Your task to perform on an android device: uninstall "Viber Messenger" Image 0: 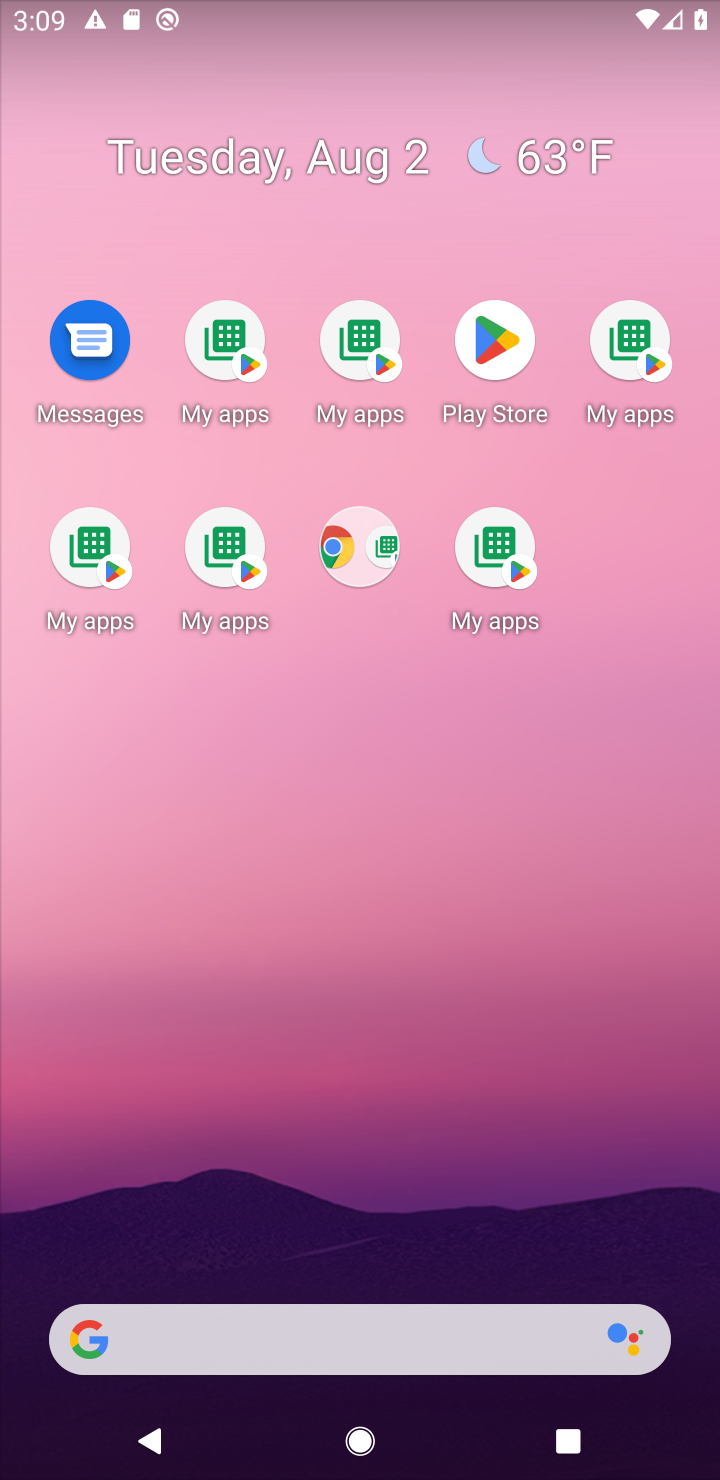
Step 0: drag from (394, 1012) to (360, 435)
Your task to perform on an android device: uninstall "Viber Messenger" Image 1: 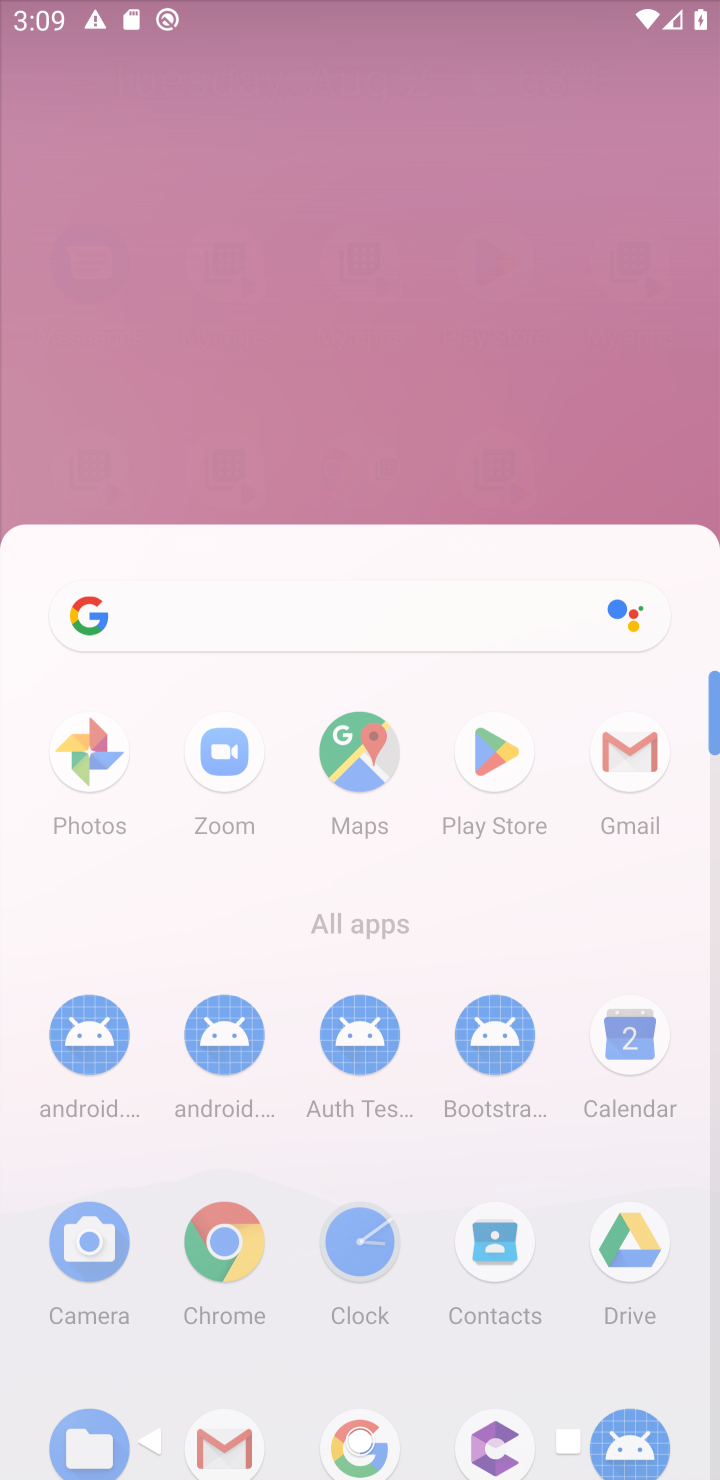
Step 1: drag from (383, 723) to (394, 84)
Your task to perform on an android device: uninstall "Viber Messenger" Image 2: 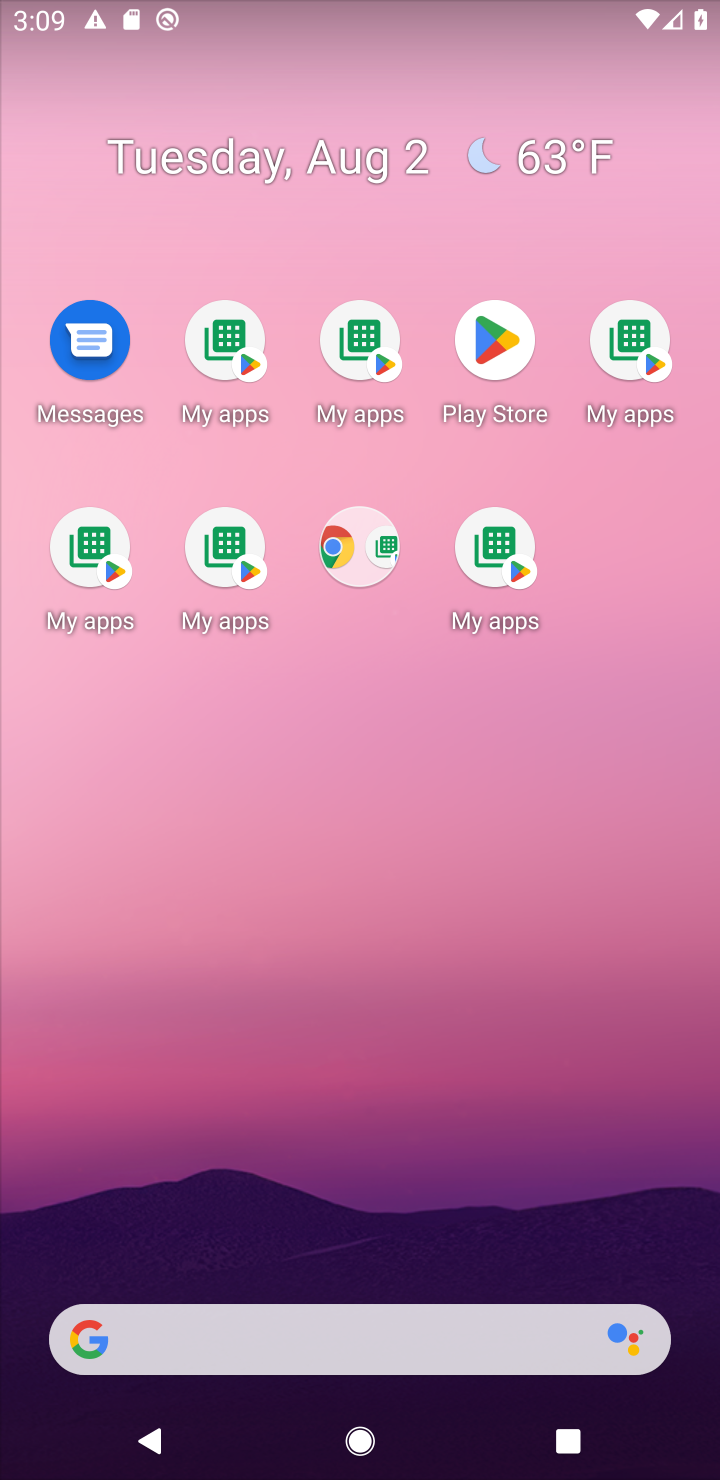
Step 2: click (323, 307)
Your task to perform on an android device: uninstall "Viber Messenger" Image 3: 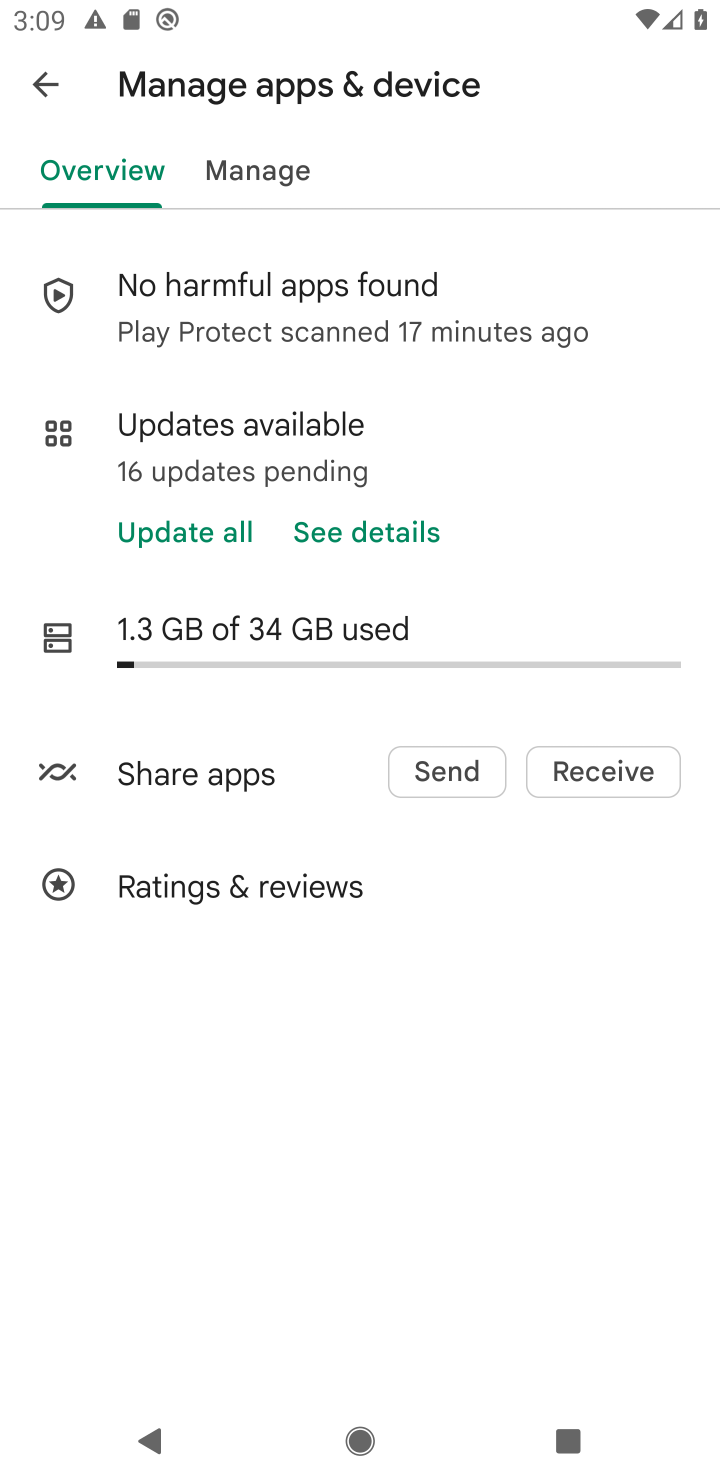
Step 3: click (37, 74)
Your task to perform on an android device: uninstall "Viber Messenger" Image 4: 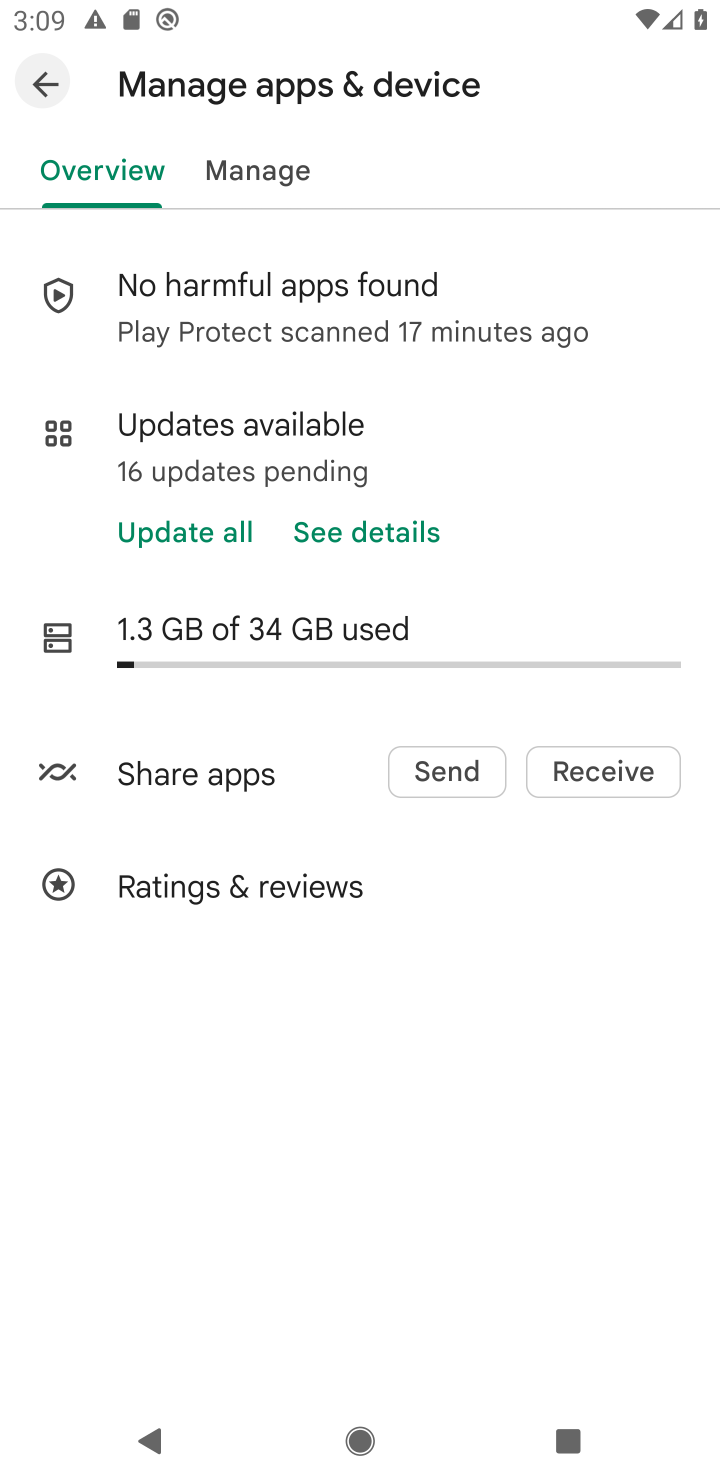
Step 4: click (40, 79)
Your task to perform on an android device: uninstall "Viber Messenger" Image 5: 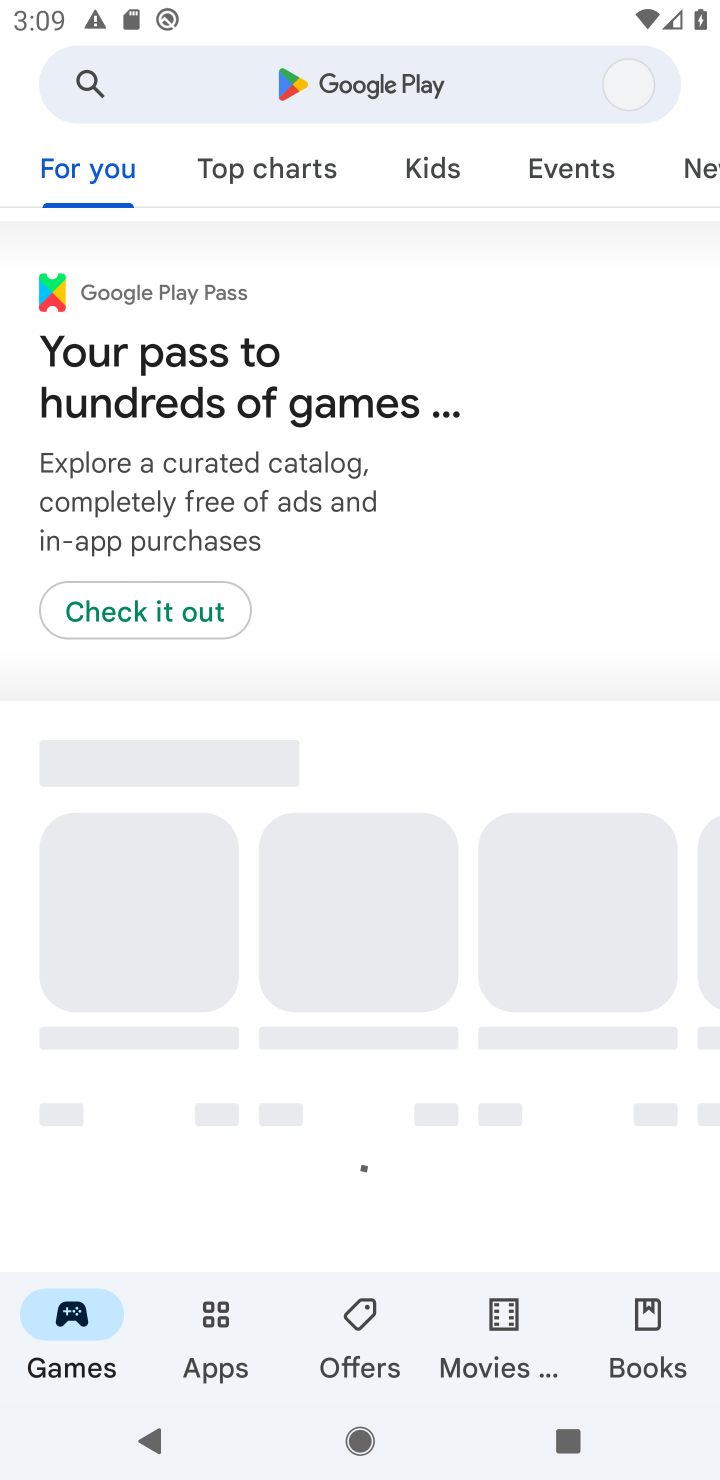
Step 5: click (335, 80)
Your task to perform on an android device: uninstall "Viber Messenger" Image 6: 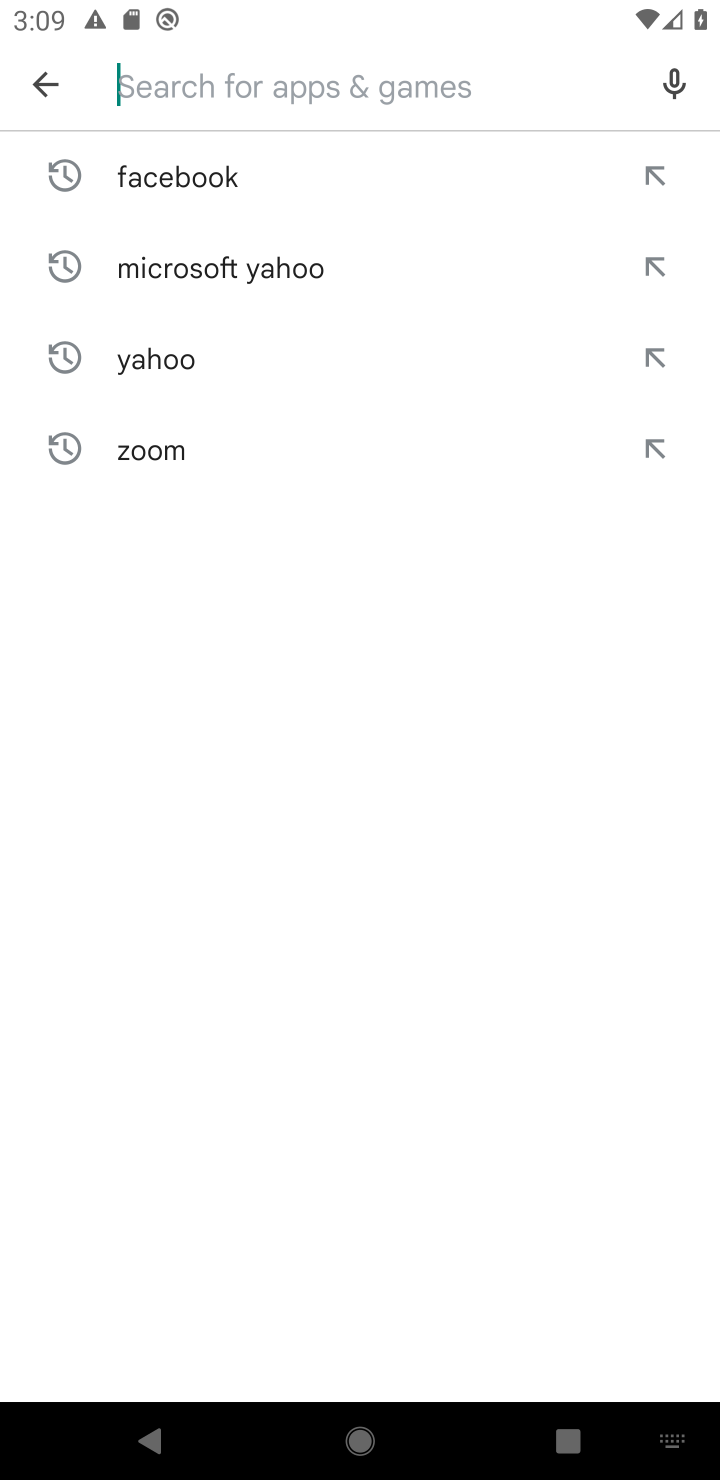
Step 6: type "viber messenger"
Your task to perform on an android device: uninstall "Viber Messenger" Image 7: 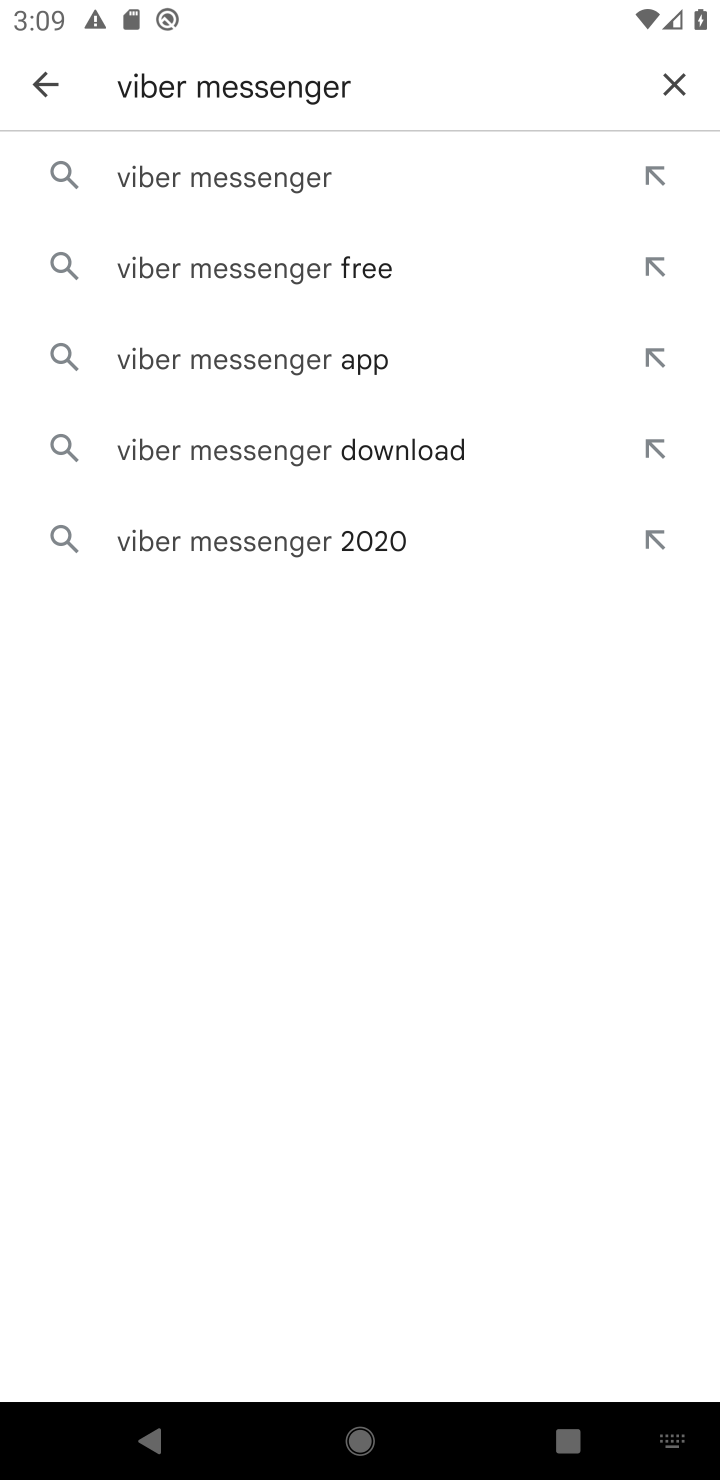
Step 7: click (204, 188)
Your task to perform on an android device: uninstall "Viber Messenger" Image 8: 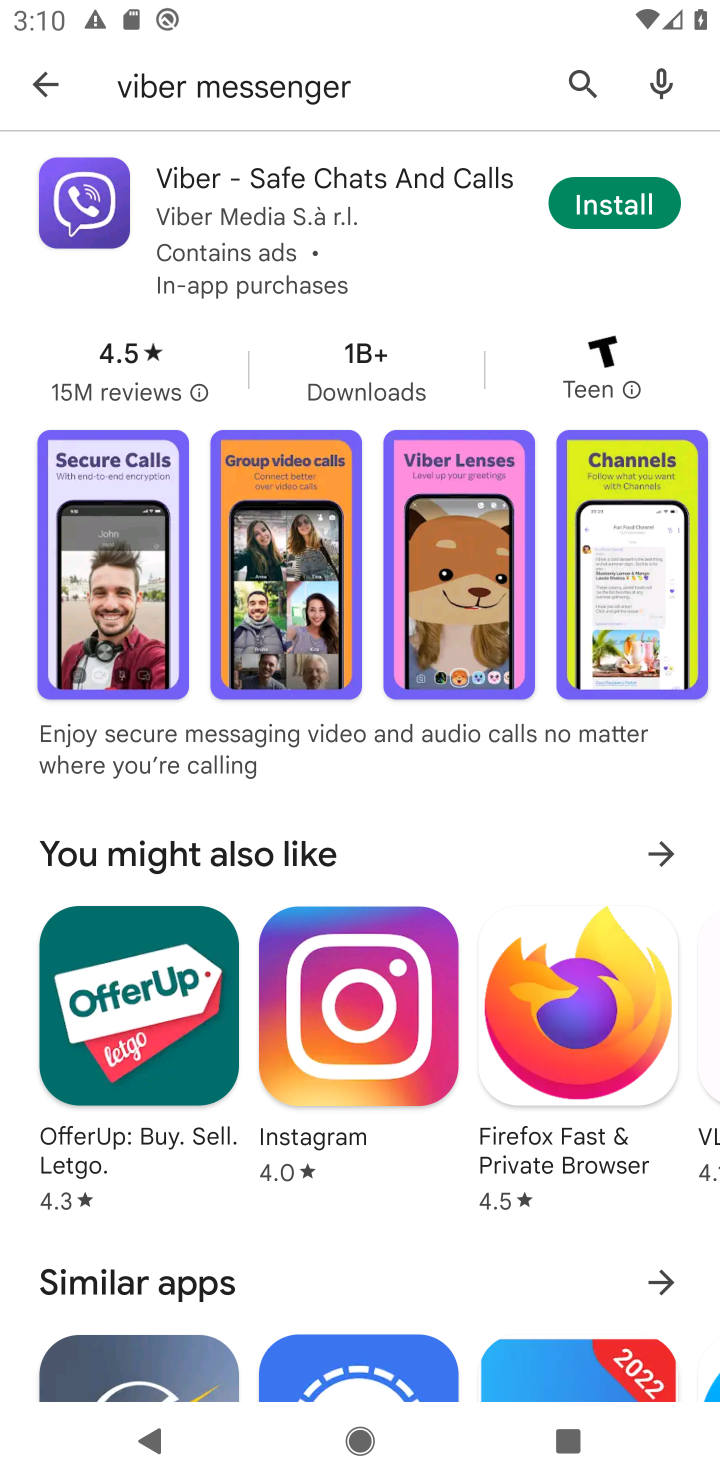
Step 8: task complete